Your task to perform on an android device: Open network settings Image 0: 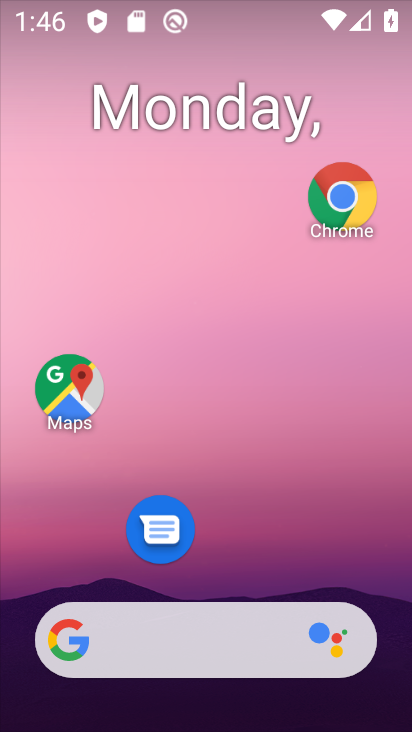
Step 0: drag from (201, 611) to (150, 4)
Your task to perform on an android device: Open network settings Image 1: 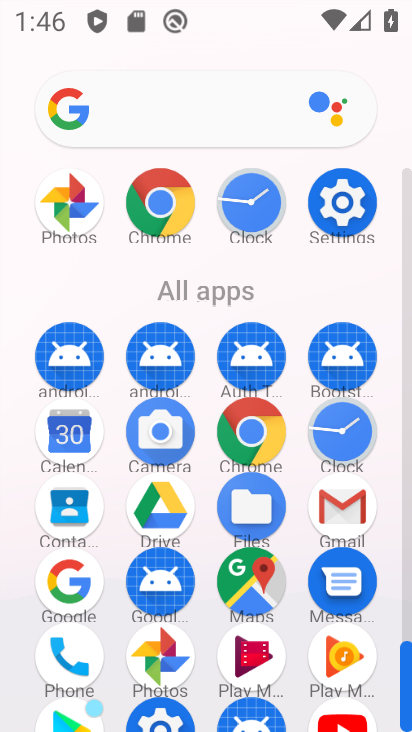
Step 1: click (351, 183)
Your task to perform on an android device: Open network settings Image 2: 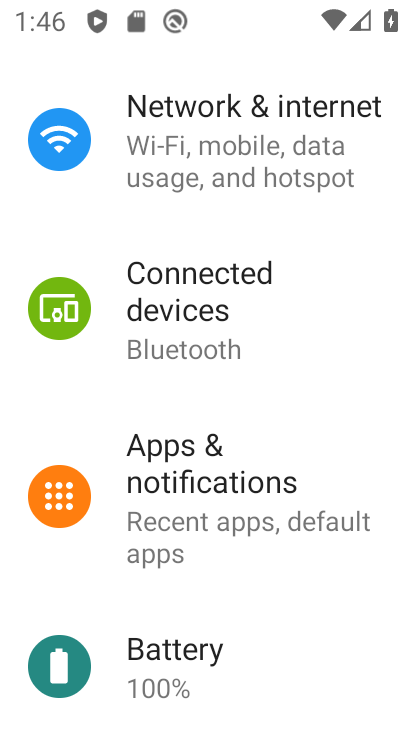
Step 2: click (293, 154)
Your task to perform on an android device: Open network settings Image 3: 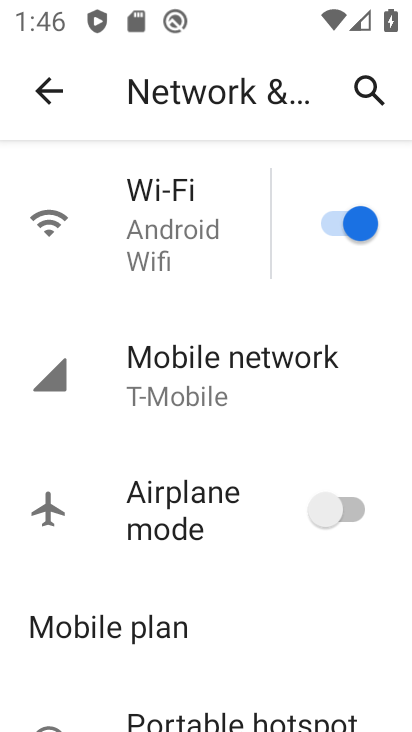
Step 3: click (264, 359)
Your task to perform on an android device: Open network settings Image 4: 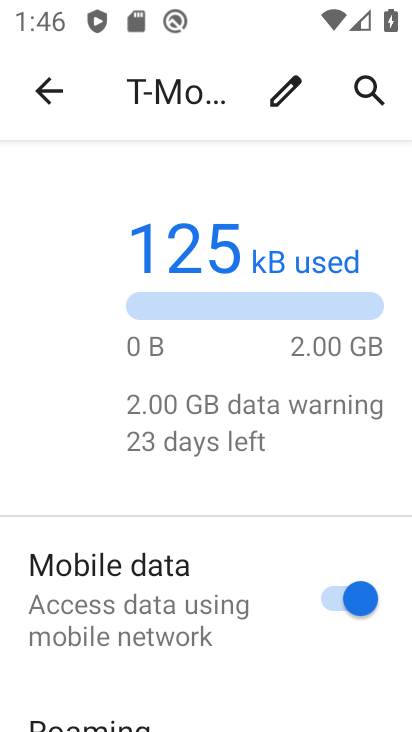
Step 4: task complete